Your task to perform on an android device: Open the calendar and show me this week's events? Image 0: 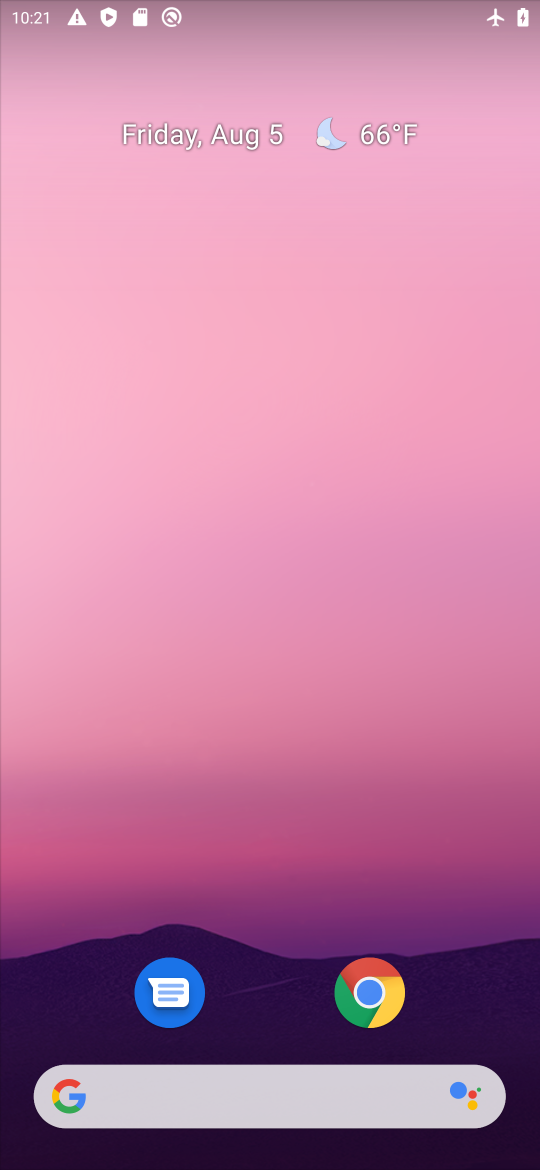
Step 0: drag from (246, 1065) to (259, 251)
Your task to perform on an android device: Open the calendar and show me this week's events? Image 1: 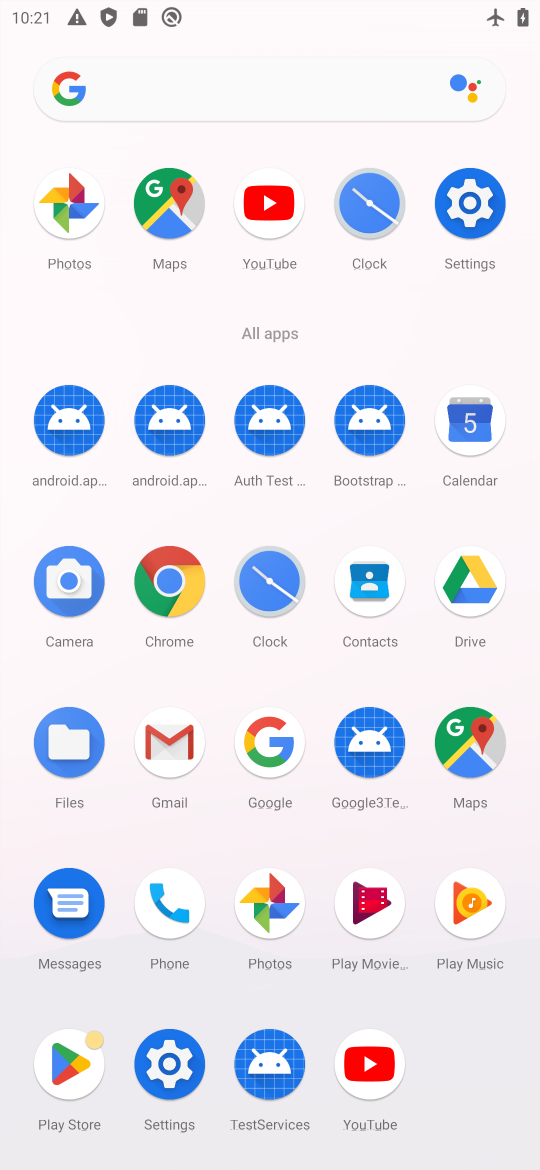
Step 1: click (499, 451)
Your task to perform on an android device: Open the calendar and show me this week's events? Image 2: 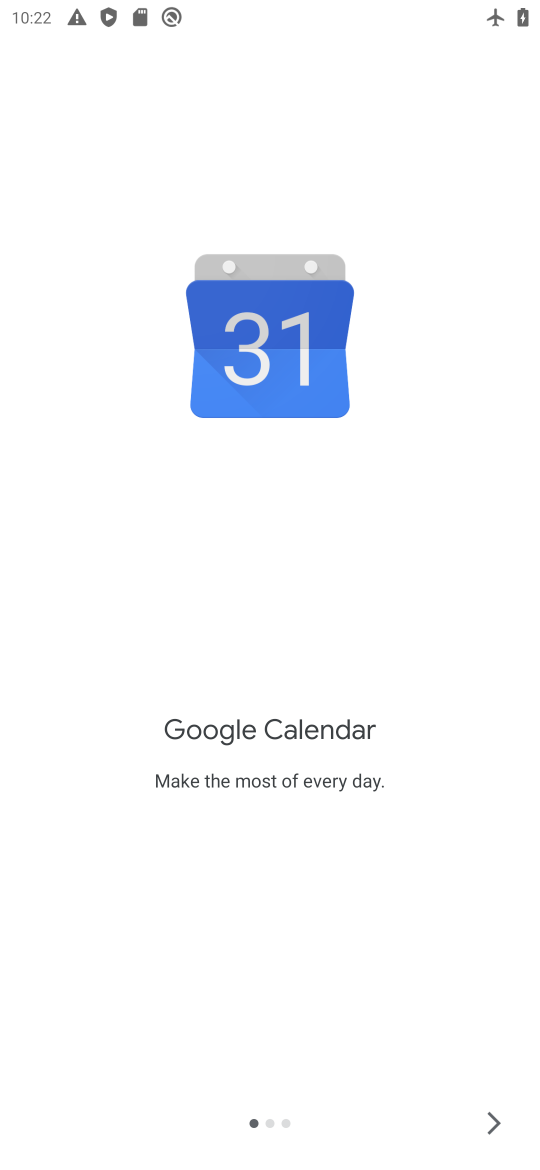
Step 2: click (493, 1125)
Your task to perform on an android device: Open the calendar and show me this week's events? Image 3: 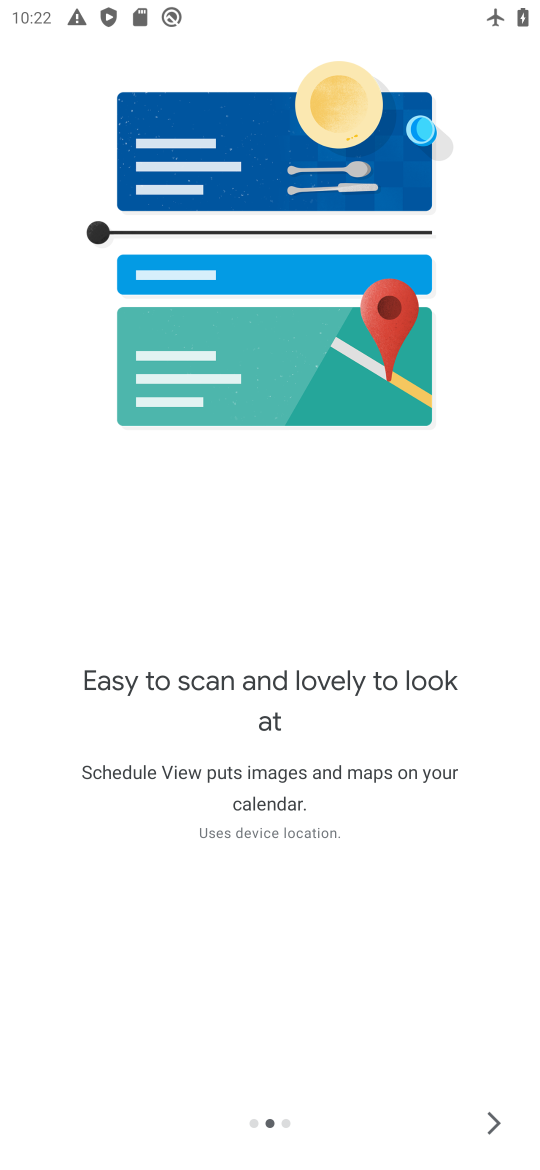
Step 3: click (491, 1119)
Your task to perform on an android device: Open the calendar and show me this week's events? Image 4: 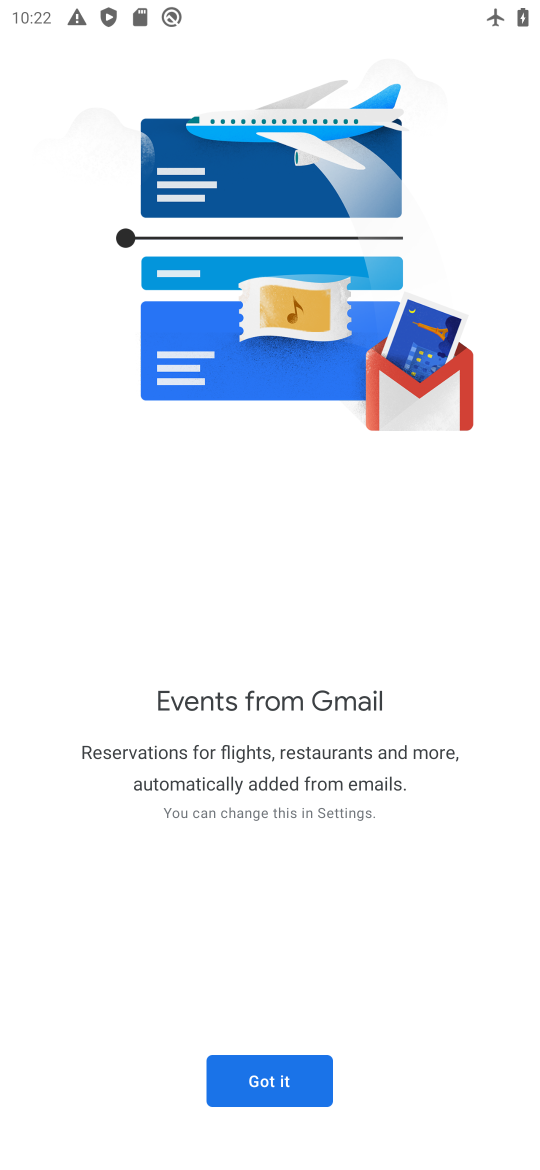
Step 4: click (256, 1080)
Your task to perform on an android device: Open the calendar and show me this week's events? Image 5: 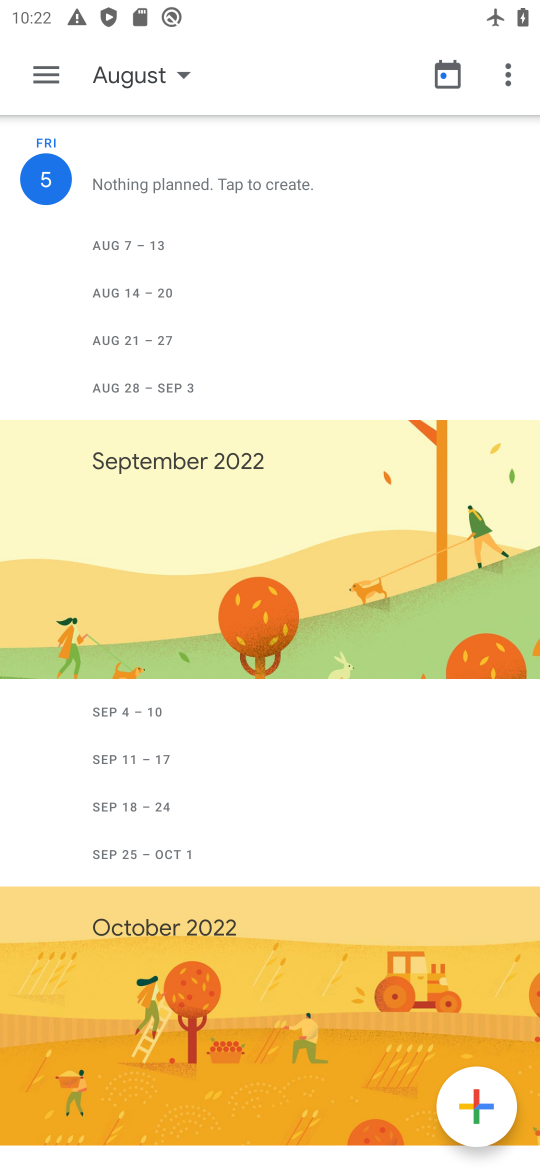
Step 5: click (173, 79)
Your task to perform on an android device: Open the calendar and show me this week's events? Image 6: 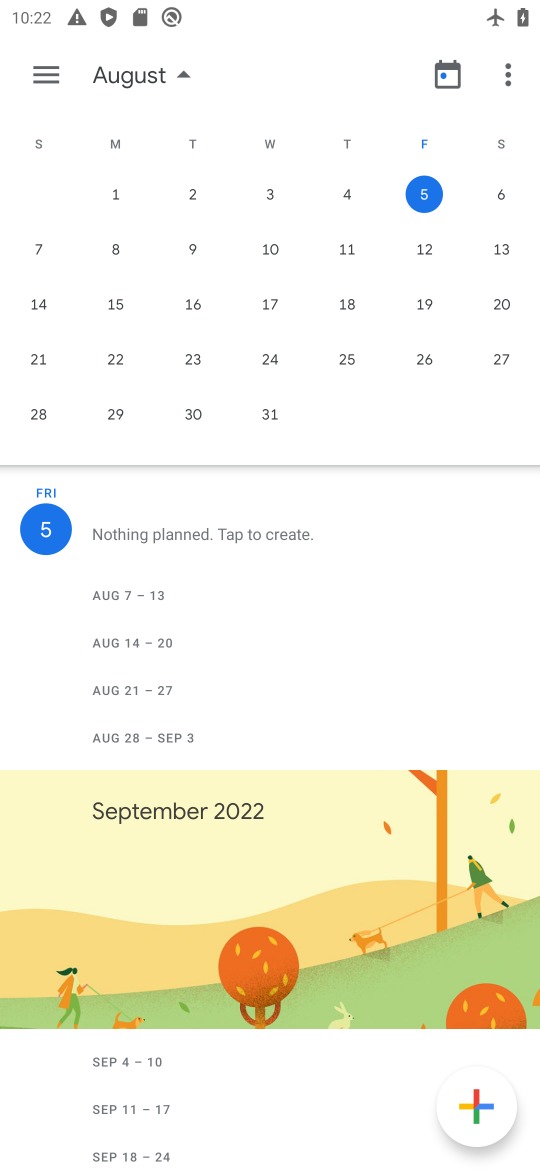
Step 6: click (428, 209)
Your task to perform on an android device: Open the calendar and show me this week's events? Image 7: 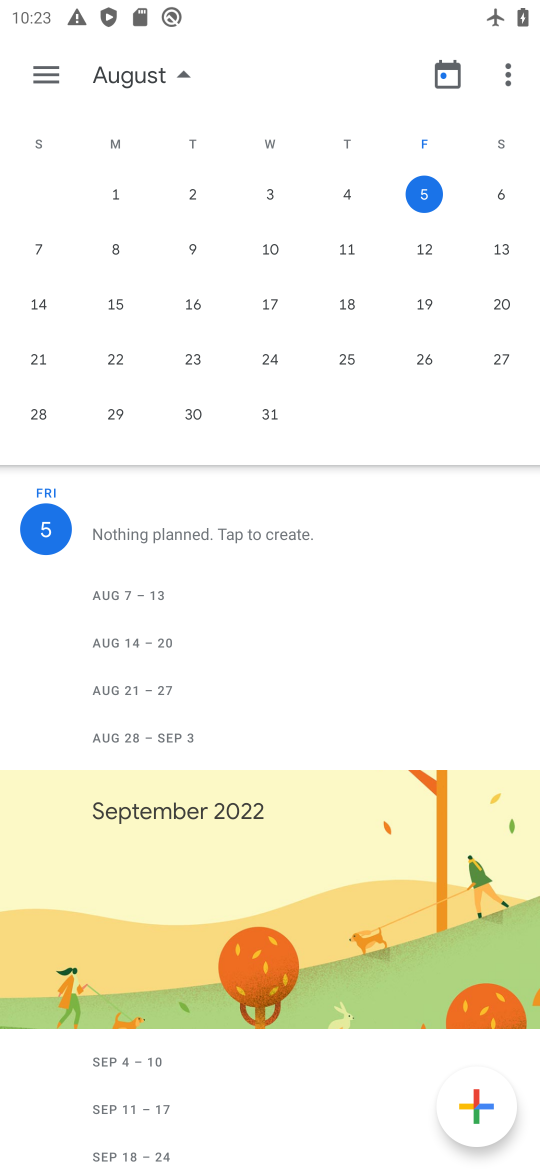
Step 7: task complete